Your task to perform on an android device: toggle translation in the chrome app Image 0: 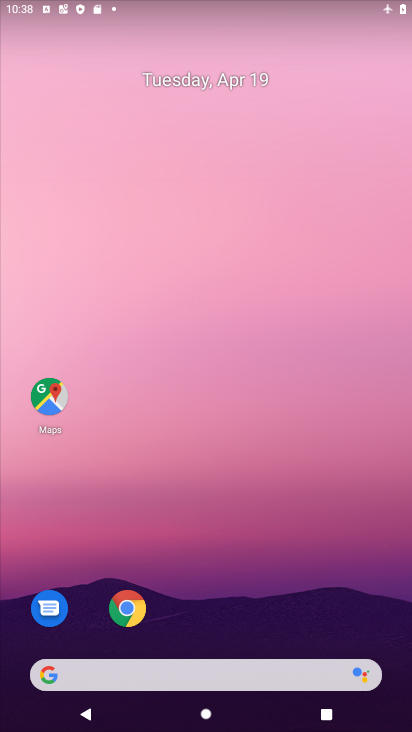
Step 0: click (125, 607)
Your task to perform on an android device: toggle translation in the chrome app Image 1: 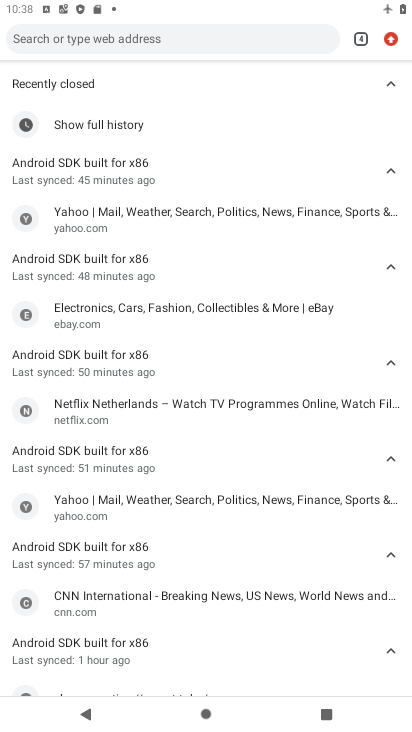
Step 1: click (389, 39)
Your task to perform on an android device: toggle translation in the chrome app Image 2: 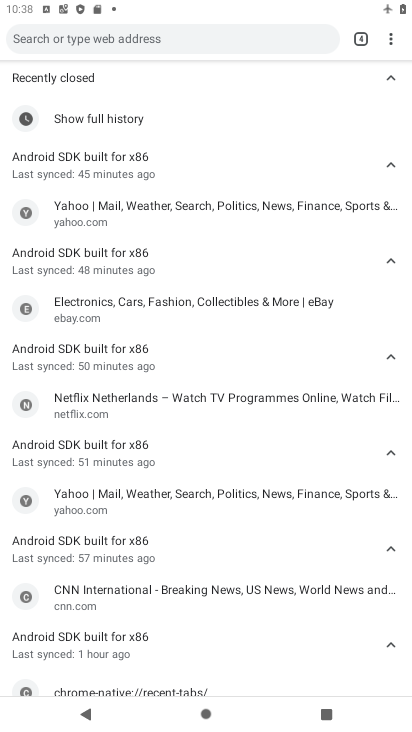
Step 2: click (390, 44)
Your task to perform on an android device: toggle translation in the chrome app Image 3: 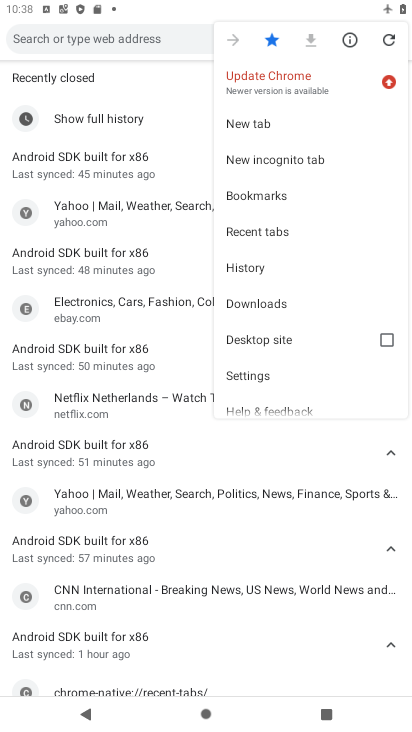
Step 3: drag from (291, 321) to (317, 167)
Your task to perform on an android device: toggle translation in the chrome app Image 4: 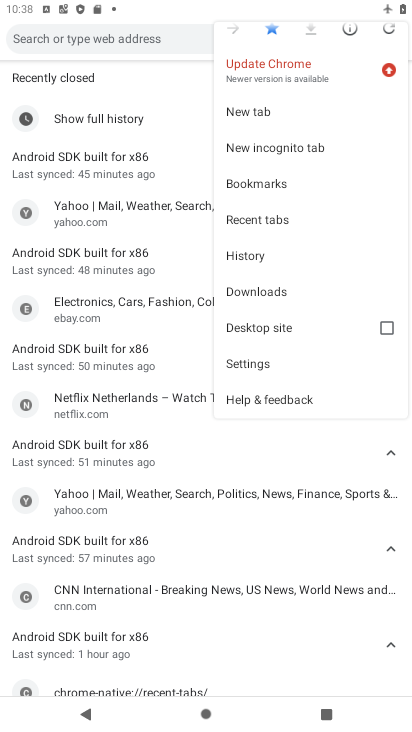
Step 4: click (261, 364)
Your task to perform on an android device: toggle translation in the chrome app Image 5: 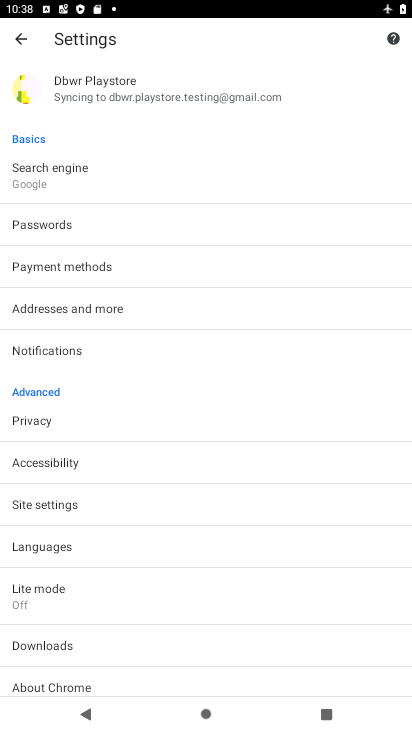
Step 5: click (41, 550)
Your task to perform on an android device: toggle translation in the chrome app Image 6: 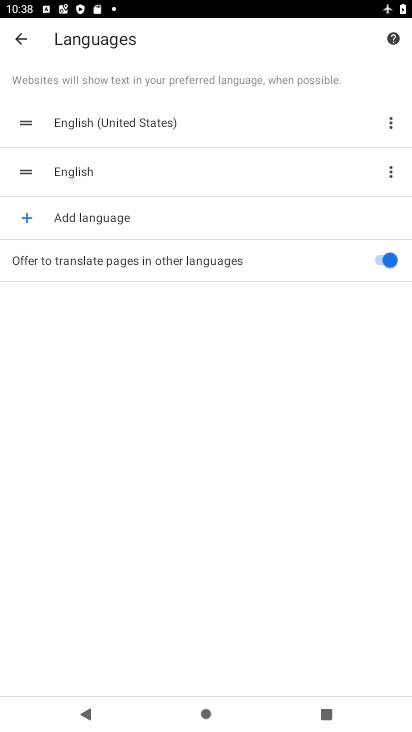
Step 6: click (375, 255)
Your task to perform on an android device: toggle translation in the chrome app Image 7: 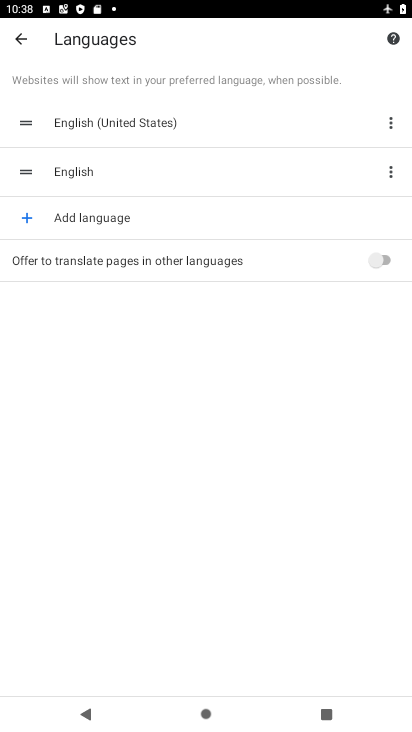
Step 7: task complete